Your task to perform on an android device: Go to Yahoo.com Image 0: 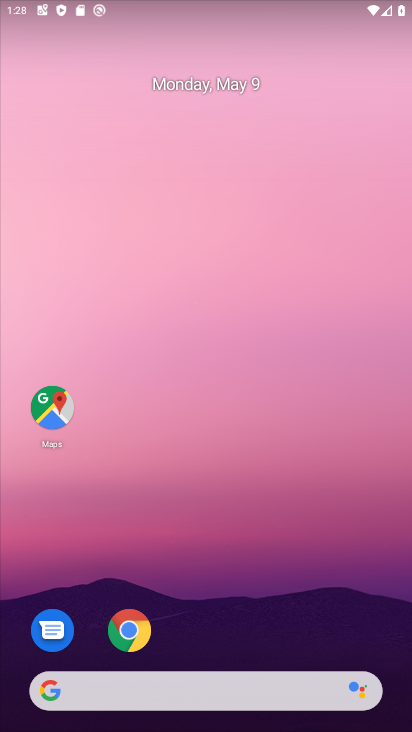
Step 0: drag from (234, 717) to (280, 295)
Your task to perform on an android device: Go to Yahoo.com Image 1: 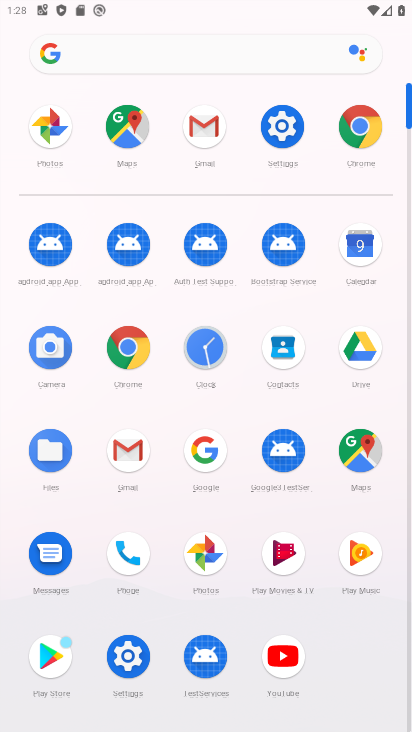
Step 1: click (347, 129)
Your task to perform on an android device: Go to Yahoo.com Image 2: 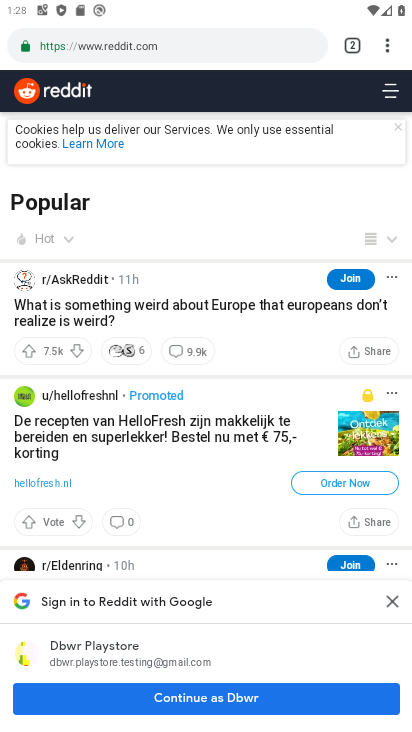
Step 2: click (355, 38)
Your task to perform on an android device: Go to Yahoo.com Image 3: 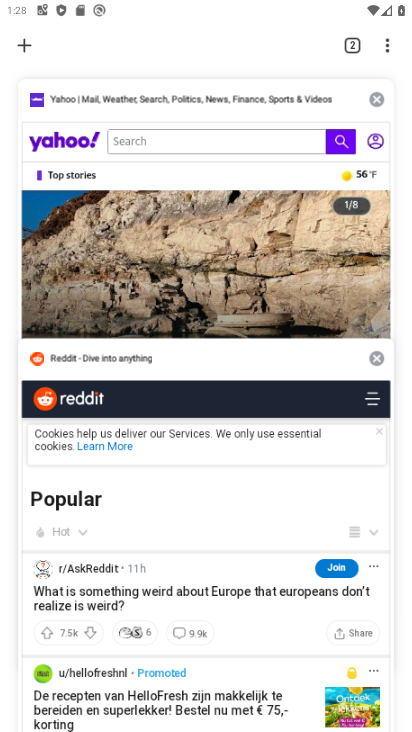
Step 3: click (29, 51)
Your task to perform on an android device: Go to Yahoo.com Image 4: 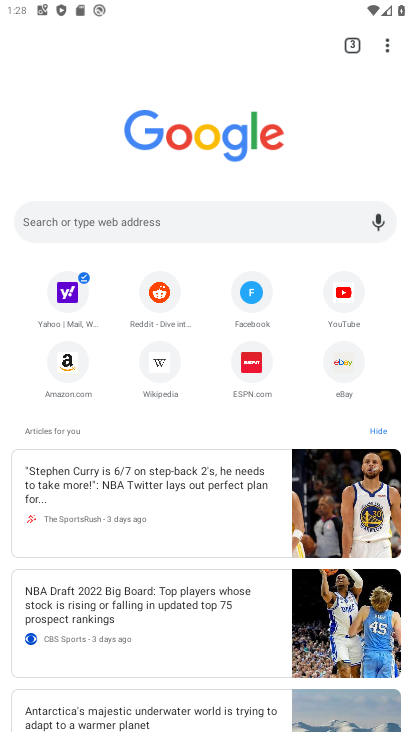
Step 4: click (69, 291)
Your task to perform on an android device: Go to Yahoo.com Image 5: 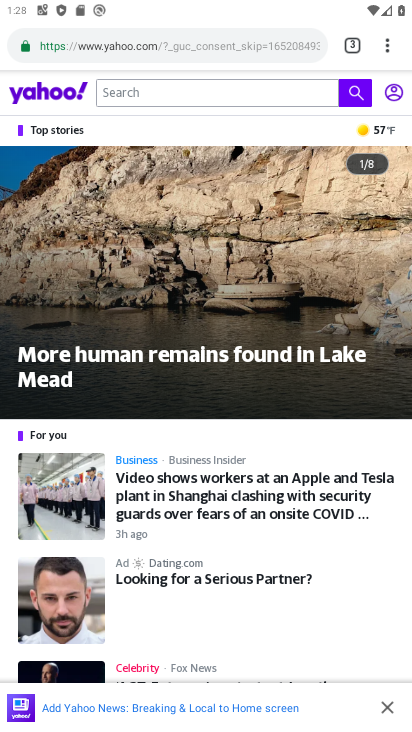
Step 5: task complete